Your task to perform on an android device: change the upload size in google photos Image 0: 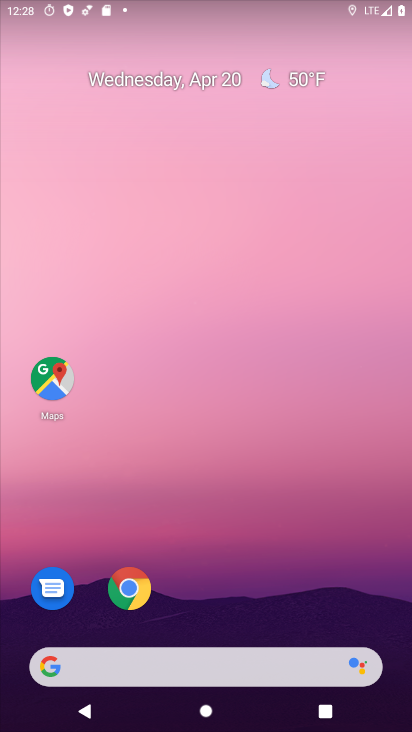
Step 0: drag from (218, 636) to (197, 42)
Your task to perform on an android device: change the upload size in google photos Image 1: 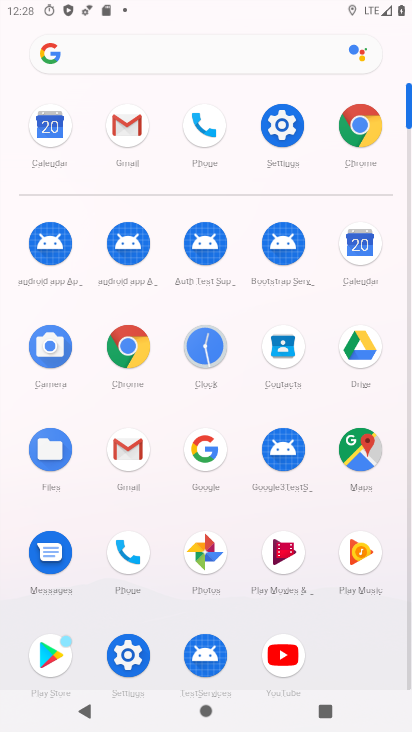
Step 1: click (203, 544)
Your task to perform on an android device: change the upload size in google photos Image 2: 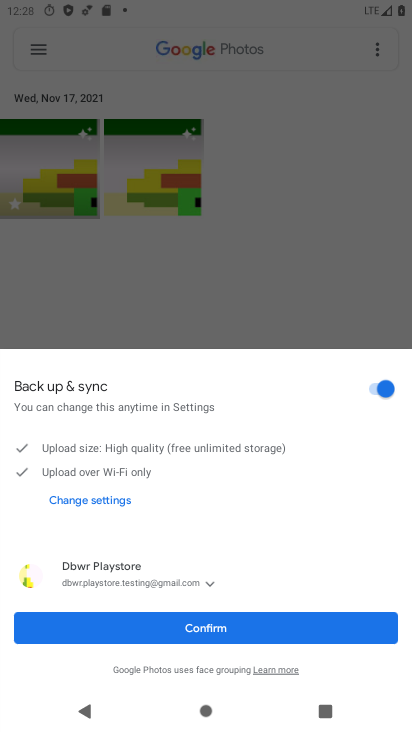
Step 2: click (87, 494)
Your task to perform on an android device: change the upload size in google photos Image 3: 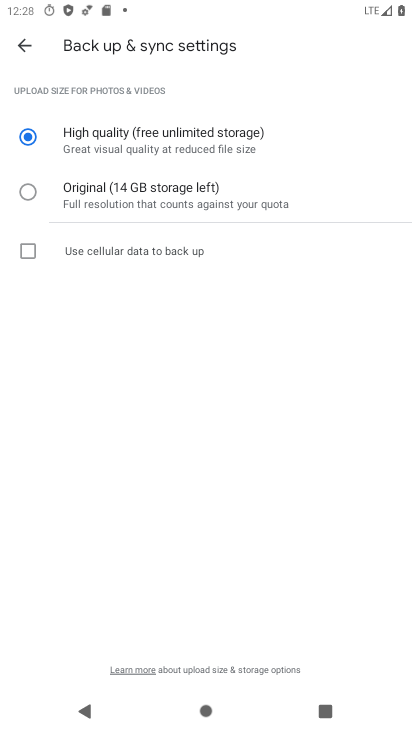
Step 3: click (114, 200)
Your task to perform on an android device: change the upload size in google photos Image 4: 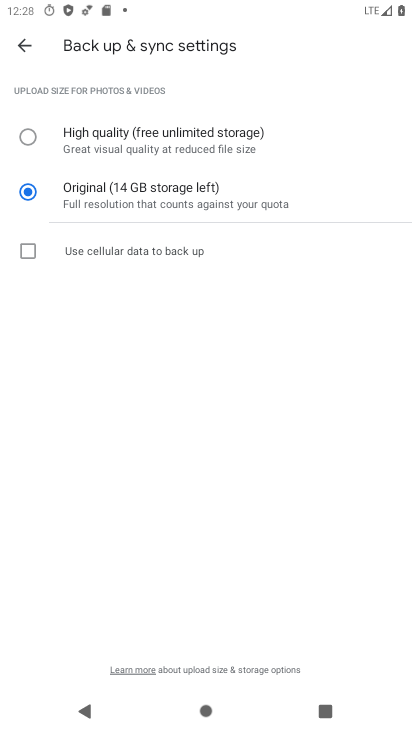
Step 4: task complete